Your task to perform on an android device: Open calendar and show me the fourth week of next month Image 0: 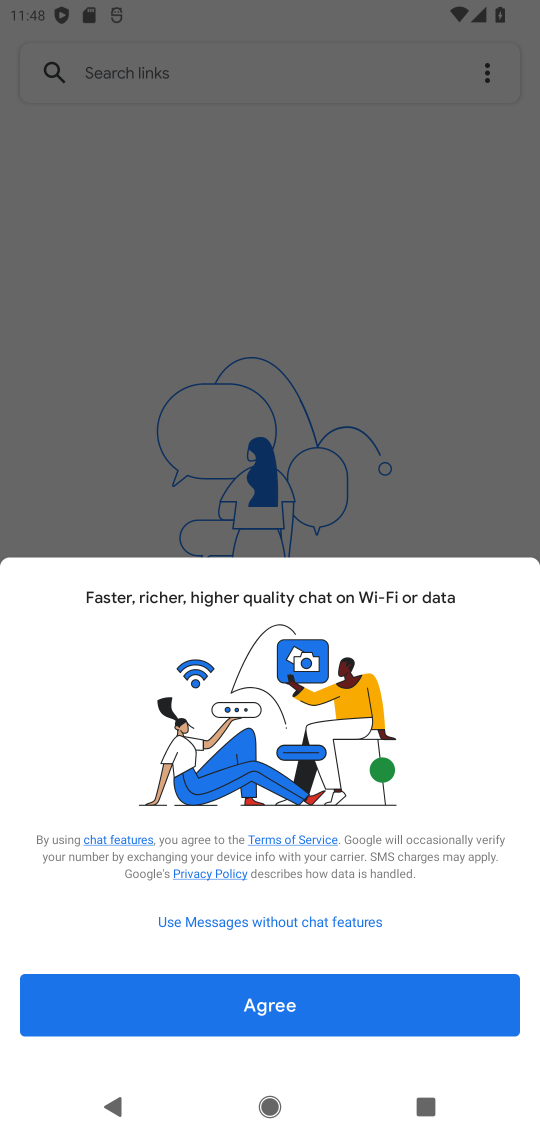
Step 0: press home button
Your task to perform on an android device: Open calendar and show me the fourth week of next month Image 1: 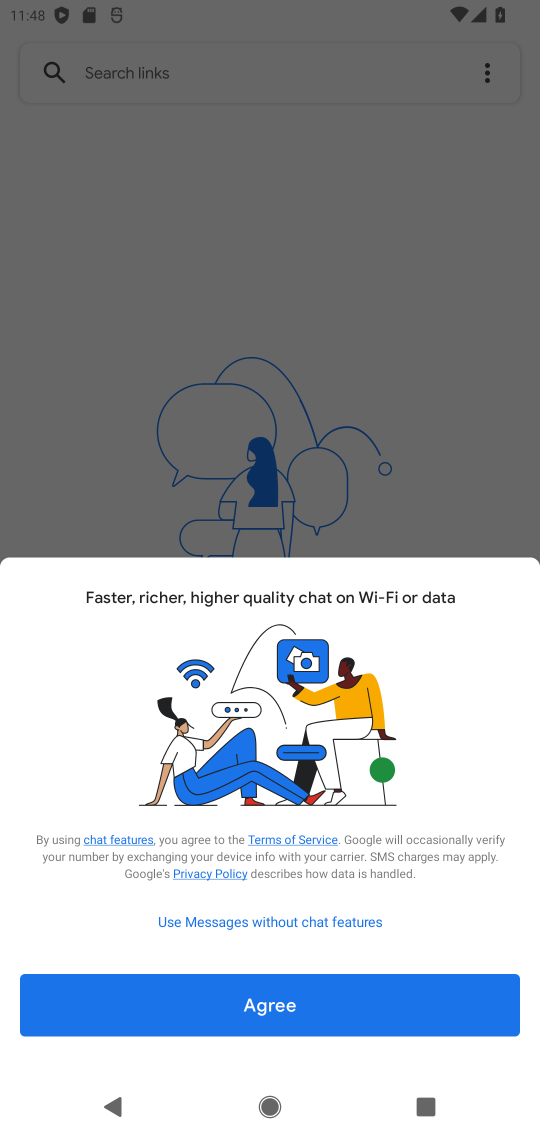
Step 1: press home button
Your task to perform on an android device: Open calendar and show me the fourth week of next month Image 2: 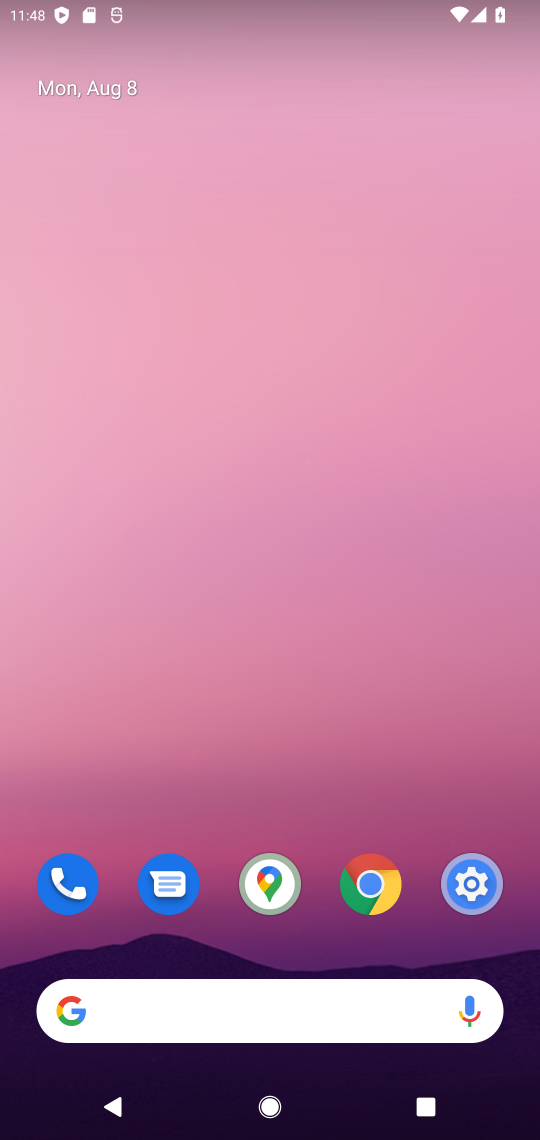
Step 2: drag from (352, 1044) to (414, 300)
Your task to perform on an android device: Open calendar and show me the fourth week of next month Image 3: 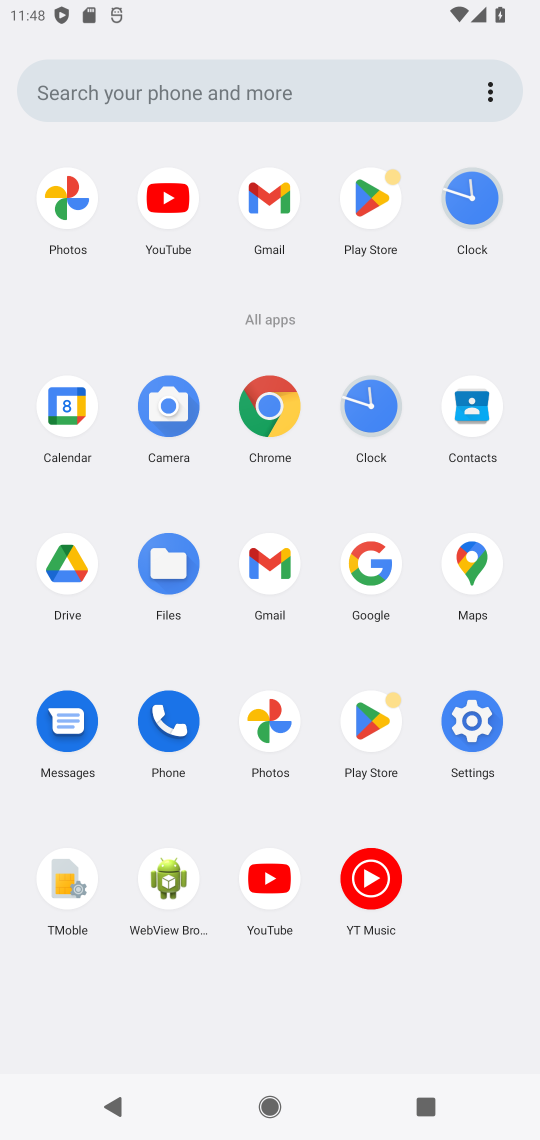
Step 3: click (59, 402)
Your task to perform on an android device: Open calendar and show me the fourth week of next month Image 4: 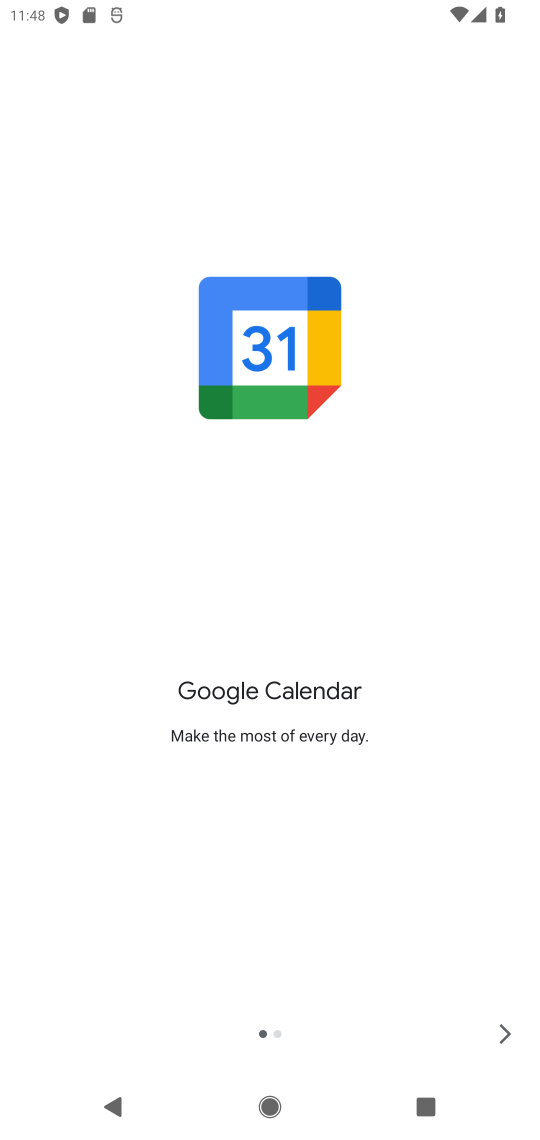
Step 4: click (502, 1019)
Your task to perform on an android device: Open calendar and show me the fourth week of next month Image 5: 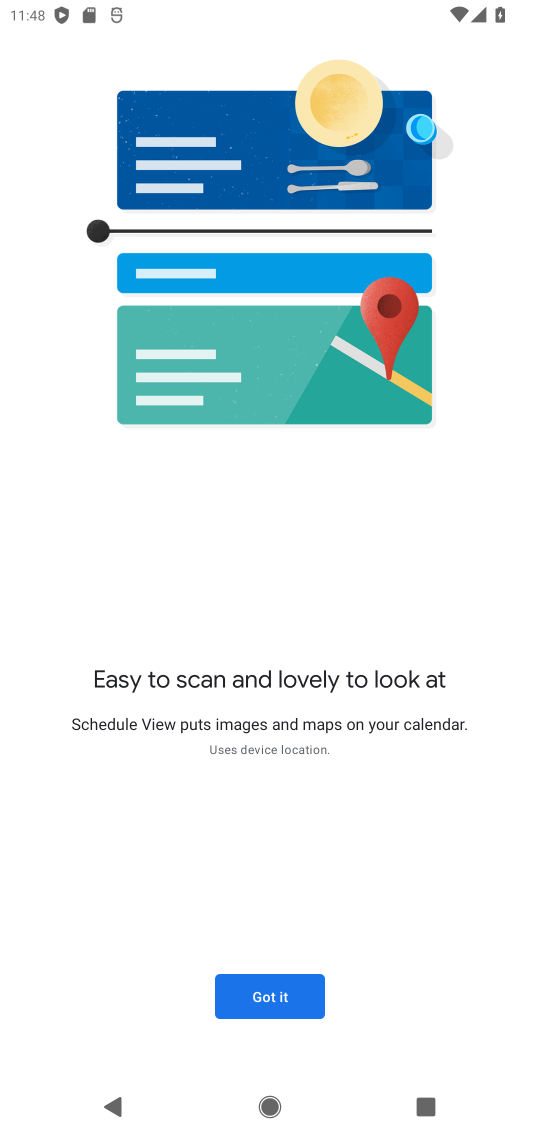
Step 5: click (255, 988)
Your task to perform on an android device: Open calendar and show me the fourth week of next month Image 6: 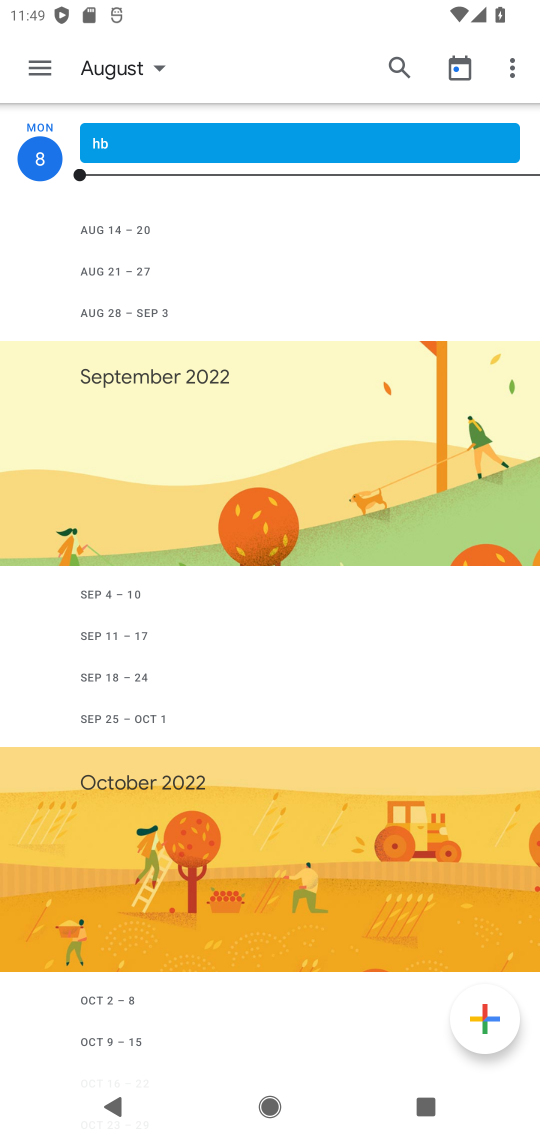
Step 6: click (97, 75)
Your task to perform on an android device: Open calendar and show me the fourth week of next month Image 7: 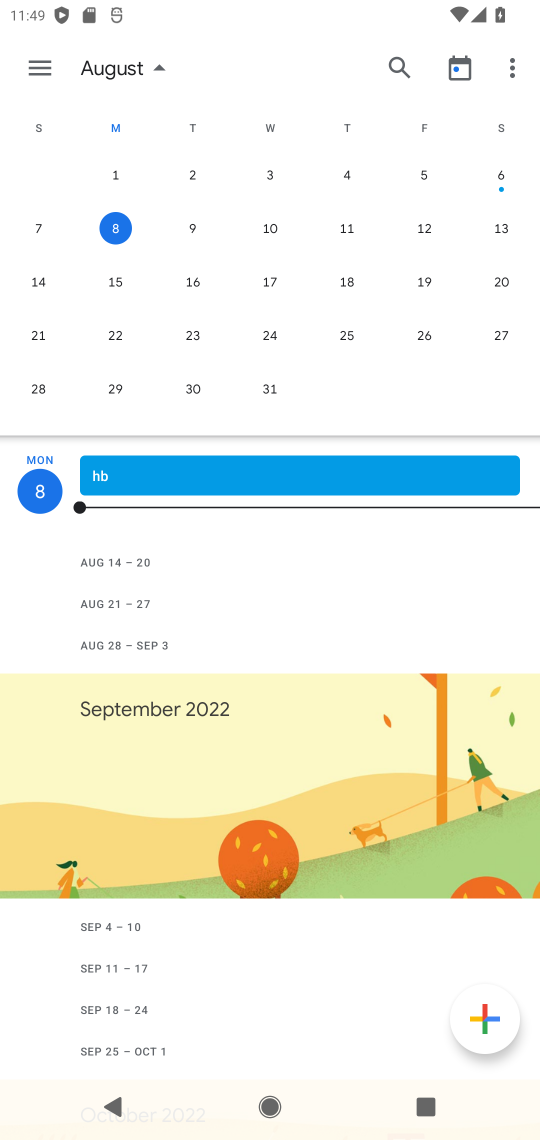
Step 7: drag from (499, 279) to (16, 342)
Your task to perform on an android device: Open calendar and show me the fourth week of next month Image 8: 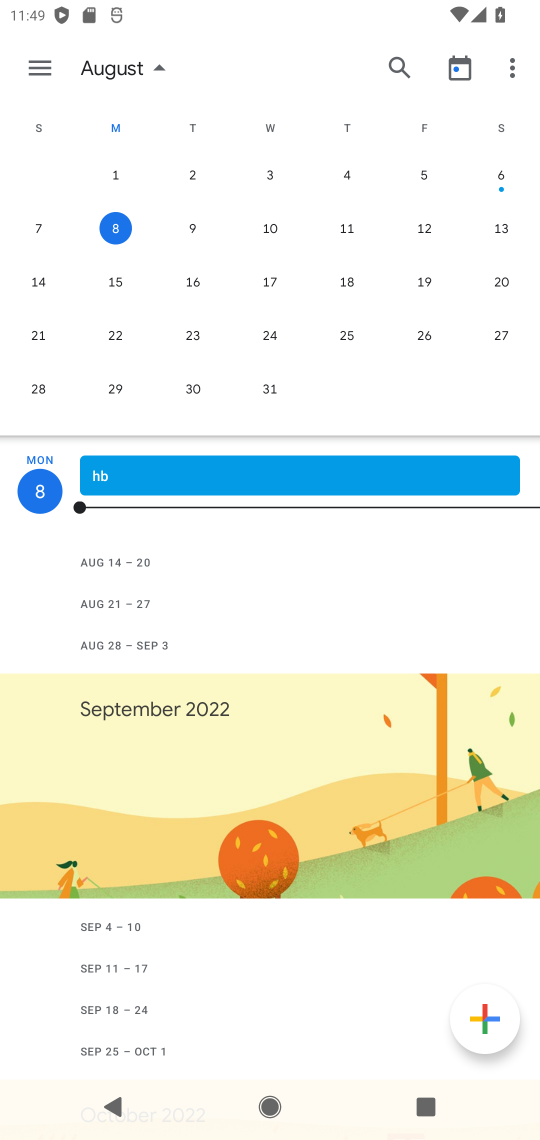
Step 8: drag from (177, 414) to (10, 304)
Your task to perform on an android device: Open calendar and show me the fourth week of next month Image 9: 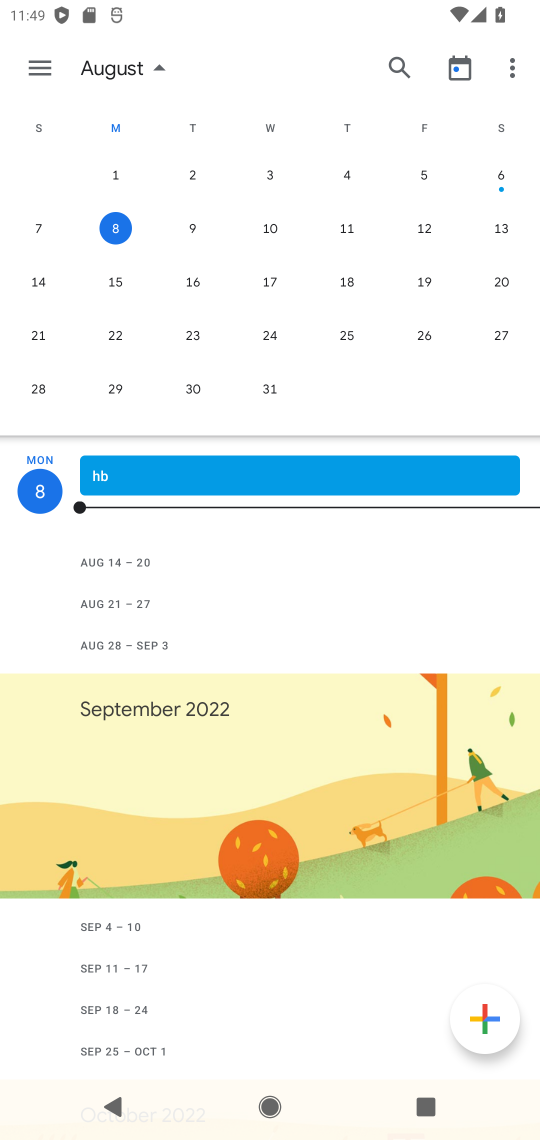
Step 9: drag from (517, 224) to (14, 300)
Your task to perform on an android device: Open calendar and show me the fourth week of next month Image 10: 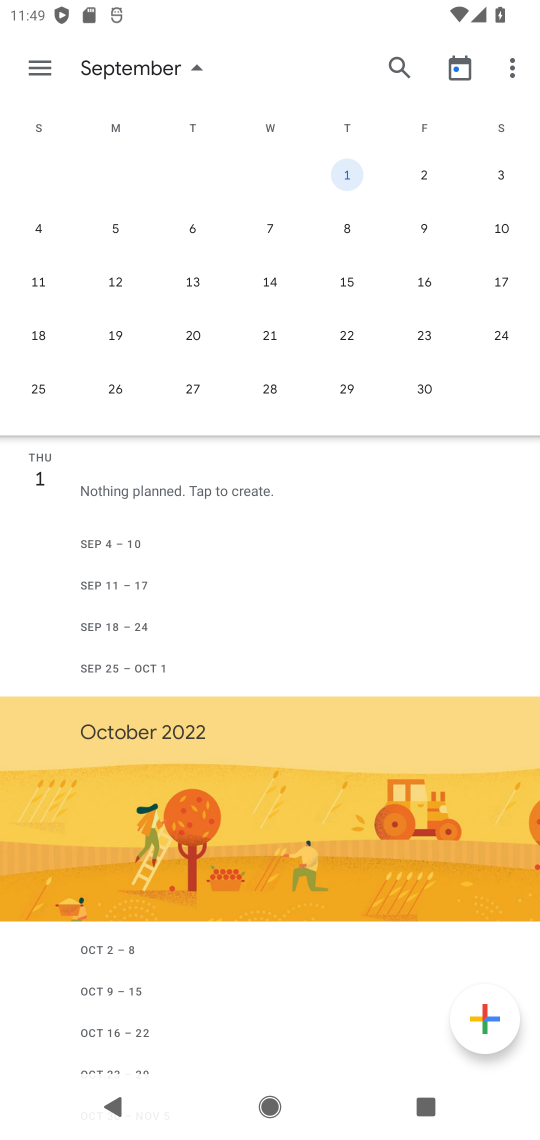
Step 10: click (43, 332)
Your task to perform on an android device: Open calendar and show me the fourth week of next month Image 11: 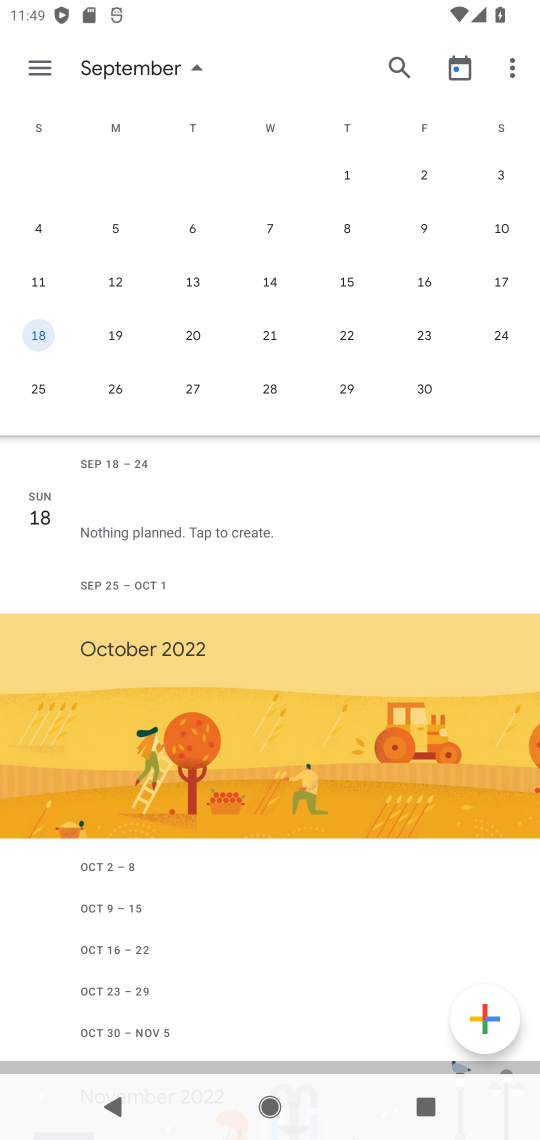
Step 11: task complete